Your task to perform on an android device: turn on javascript in the chrome app Image 0: 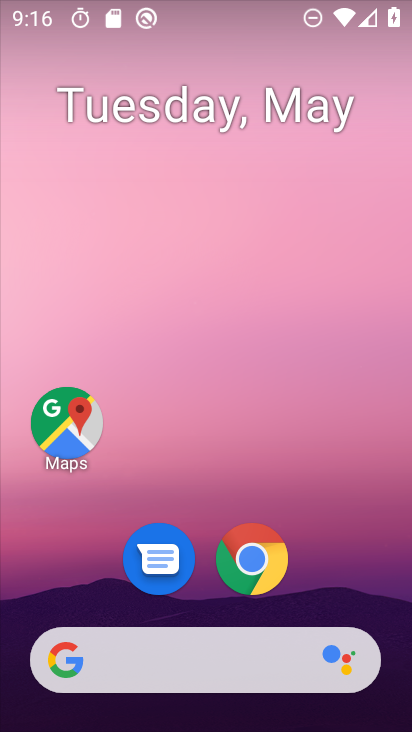
Step 0: drag from (389, 649) to (279, 104)
Your task to perform on an android device: turn on javascript in the chrome app Image 1: 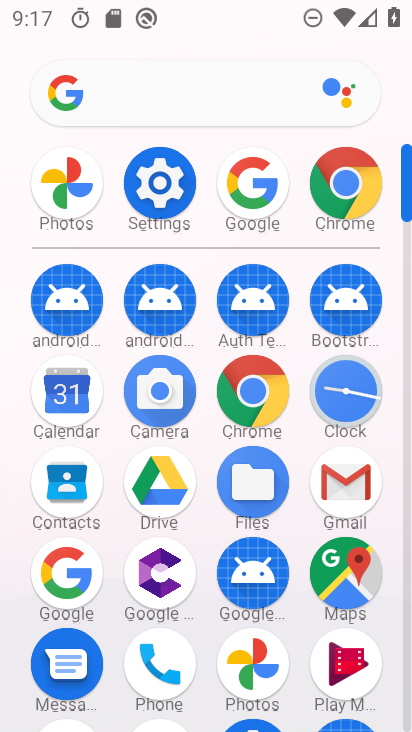
Step 1: click (334, 181)
Your task to perform on an android device: turn on javascript in the chrome app Image 2: 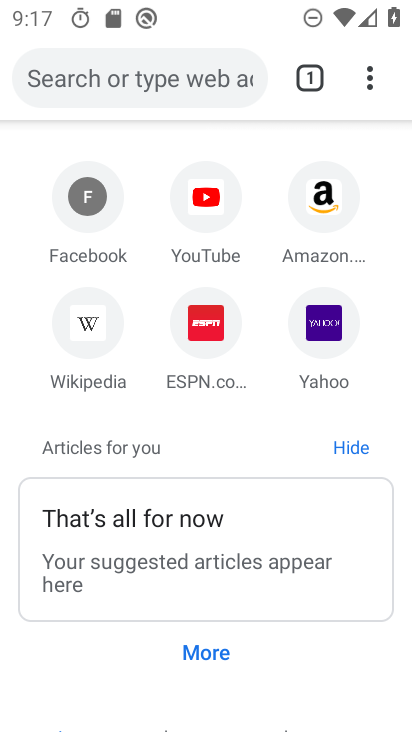
Step 2: click (372, 72)
Your task to perform on an android device: turn on javascript in the chrome app Image 3: 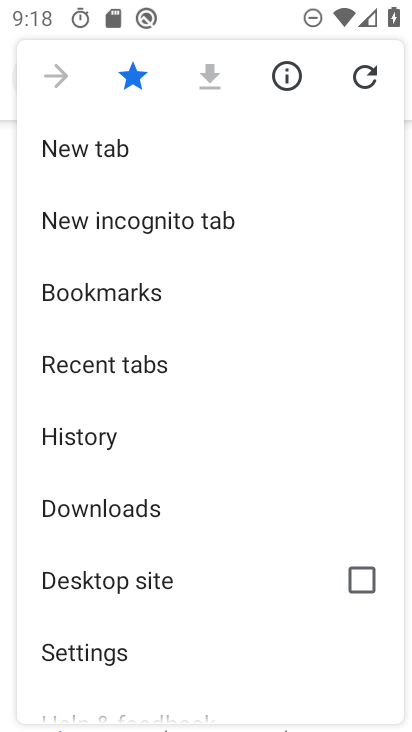
Step 3: click (126, 646)
Your task to perform on an android device: turn on javascript in the chrome app Image 4: 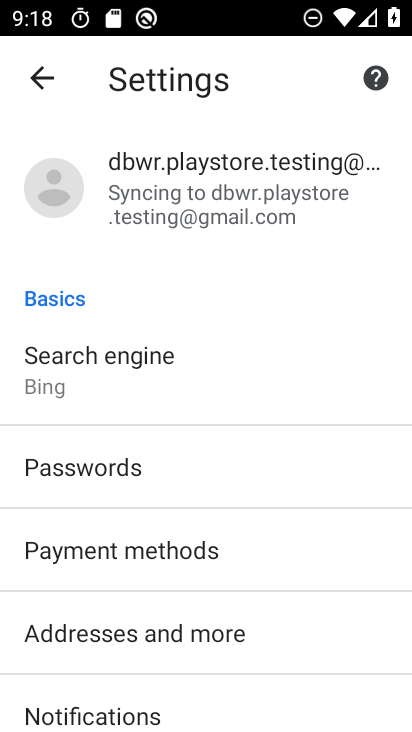
Step 4: drag from (183, 672) to (242, 287)
Your task to perform on an android device: turn on javascript in the chrome app Image 5: 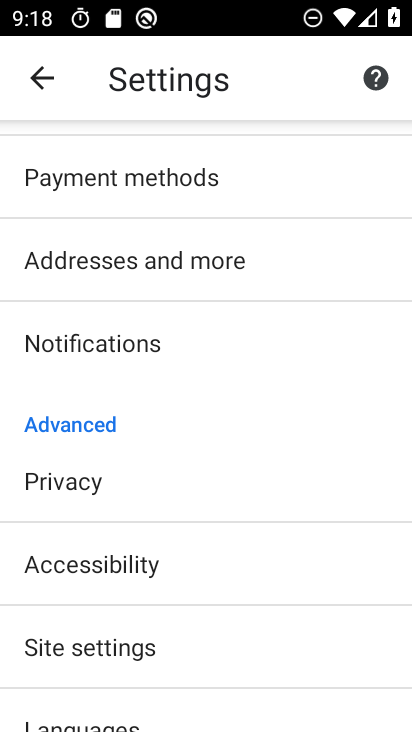
Step 5: click (206, 663)
Your task to perform on an android device: turn on javascript in the chrome app Image 6: 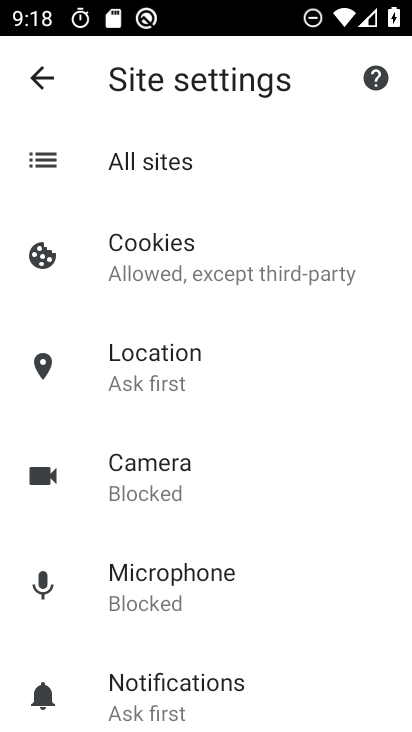
Step 6: drag from (227, 684) to (244, 257)
Your task to perform on an android device: turn on javascript in the chrome app Image 7: 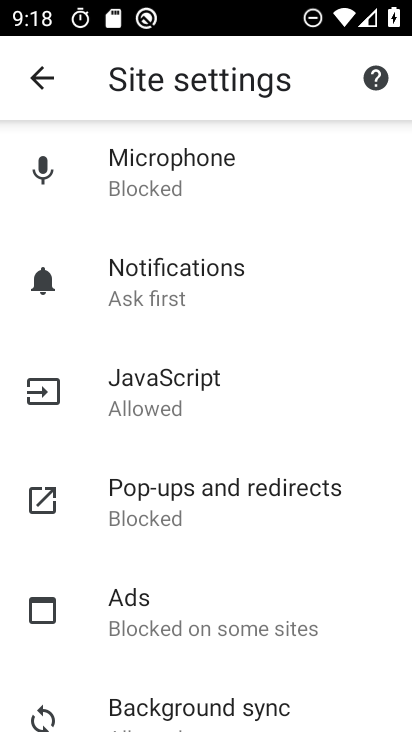
Step 7: click (223, 411)
Your task to perform on an android device: turn on javascript in the chrome app Image 8: 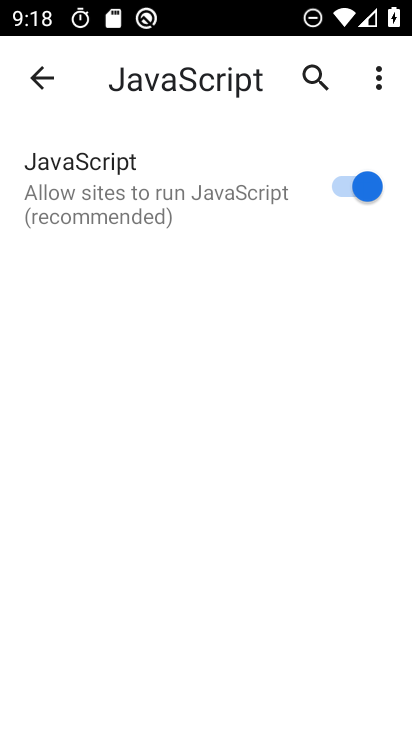
Step 8: task complete